Your task to perform on an android device: What's US dollar exchange rate against the Chinese Yuan? Image 0: 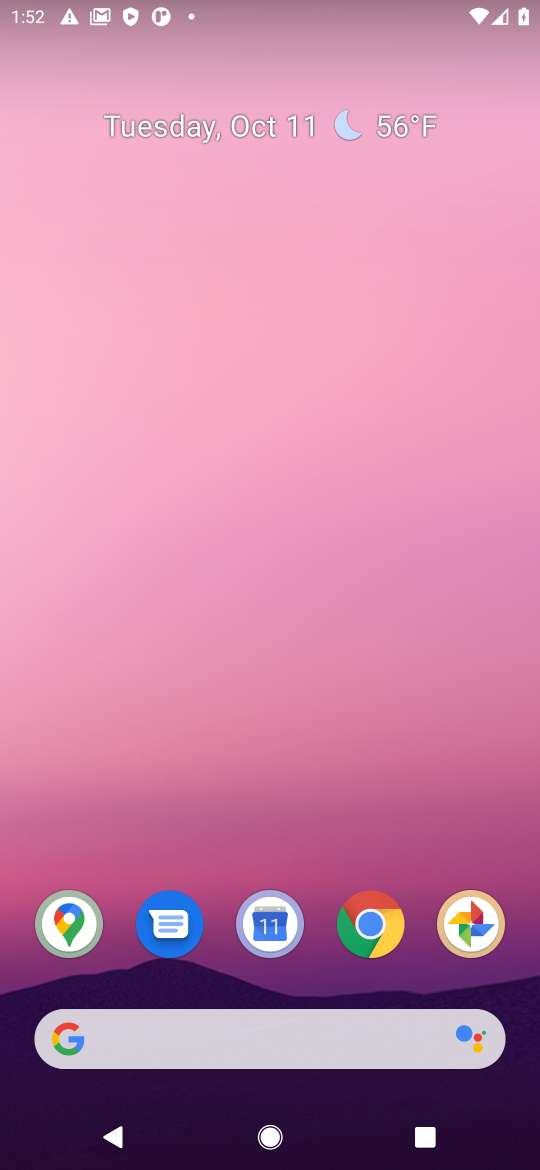
Step 0: drag from (297, 845) to (276, 69)
Your task to perform on an android device: What's US dollar exchange rate against the Chinese Yuan? Image 1: 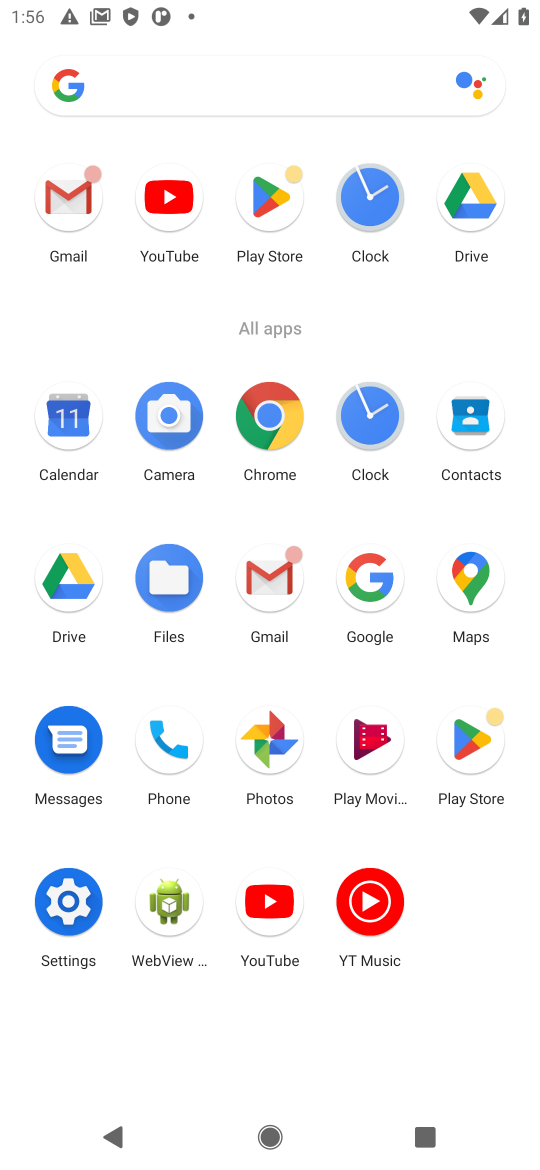
Step 1: click (379, 578)
Your task to perform on an android device: What's US dollar exchange rate against the Chinese Yuan? Image 2: 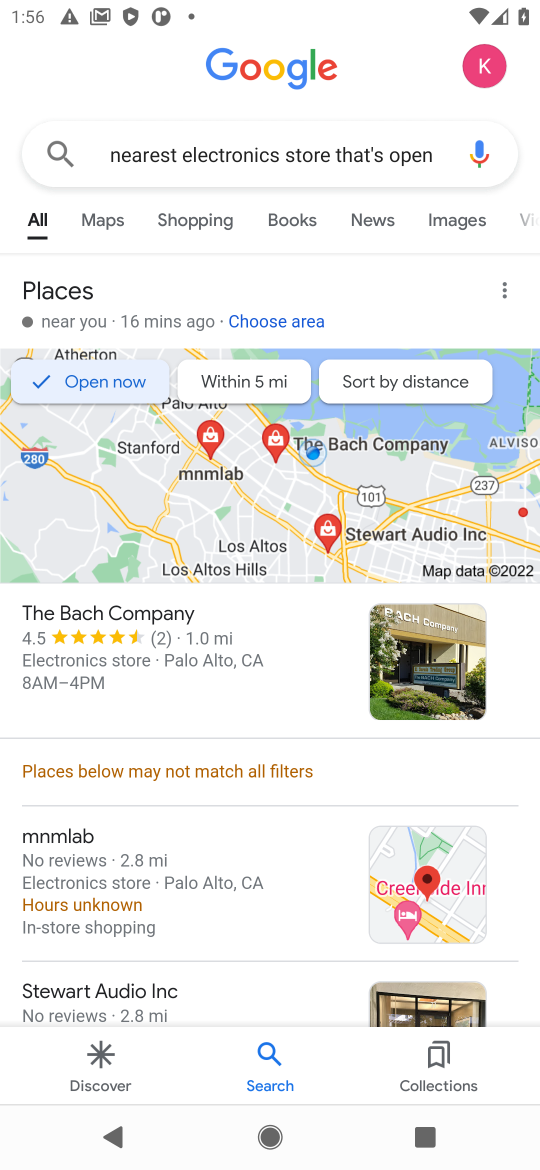
Step 2: click (387, 155)
Your task to perform on an android device: What's US dollar exchange rate against the Chinese Yuan? Image 3: 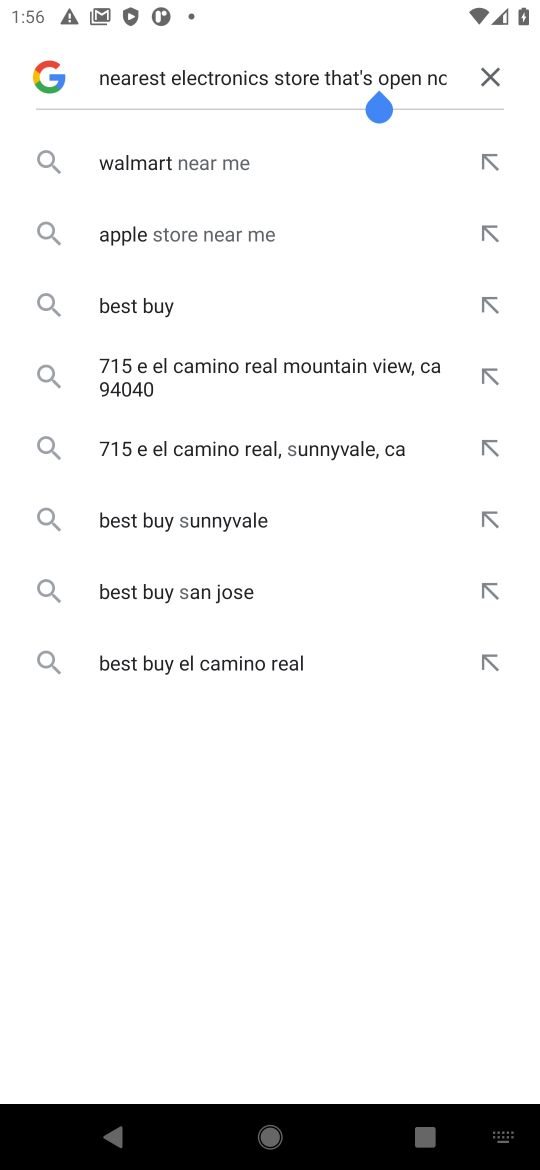
Step 3: click (487, 77)
Your task to perform on an android device: What's US dollar exchange rate against the Chinese Yuan? Image 4: 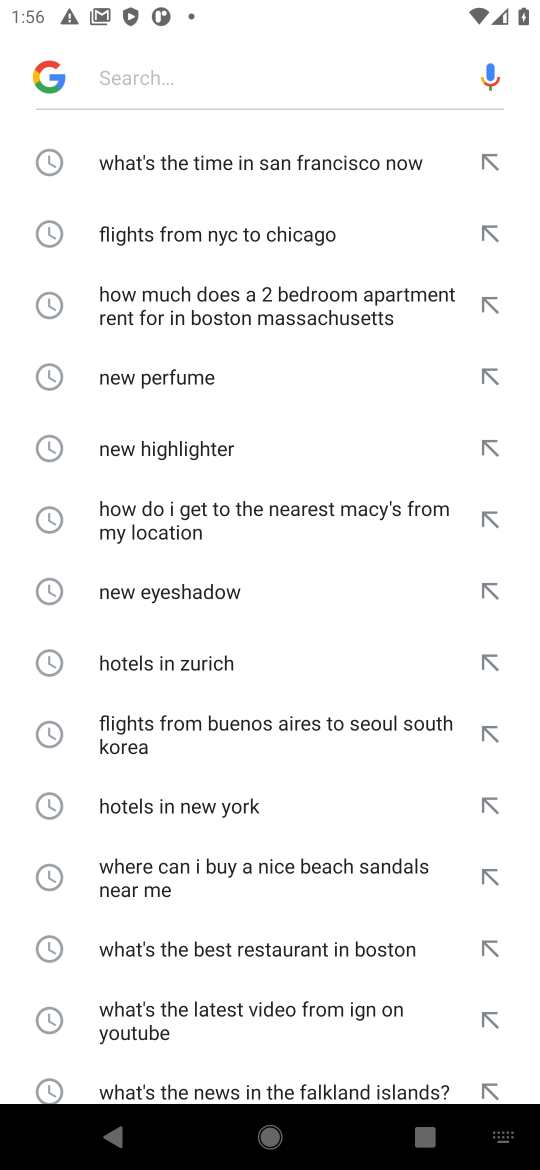
Step 4: type "What's US dollar exchange rate against the Chinese Yuan?"
Your task to perform on an android device: What's US dollar exchange rate against the Chinese Yuan? Image 5: 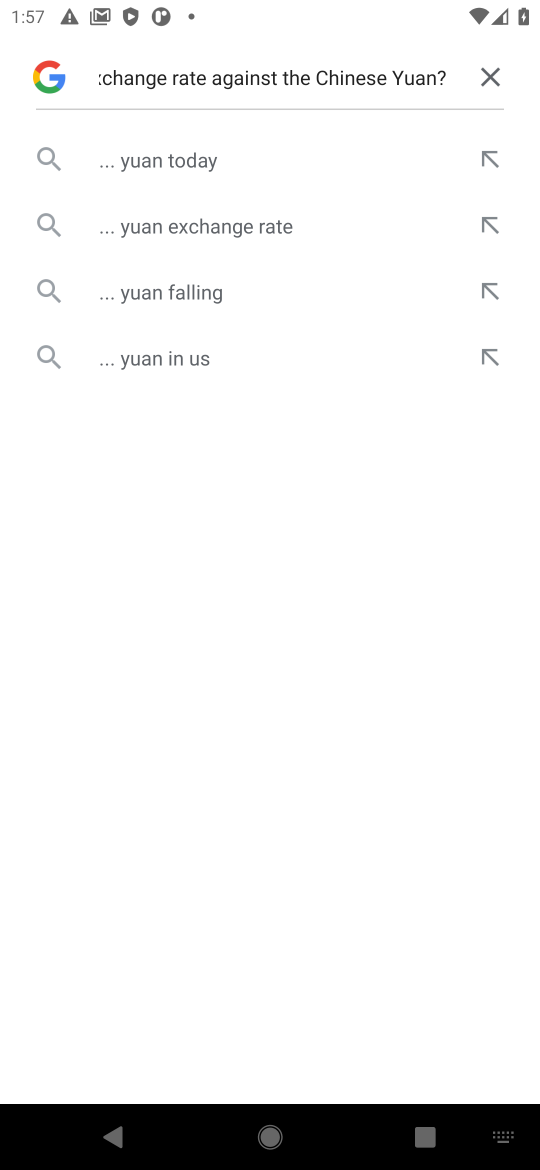
Step 5: click (168, 160)
Your task to perform on an android device: What's US dollar exchange rate against the Chinese Yuan? Image 6: 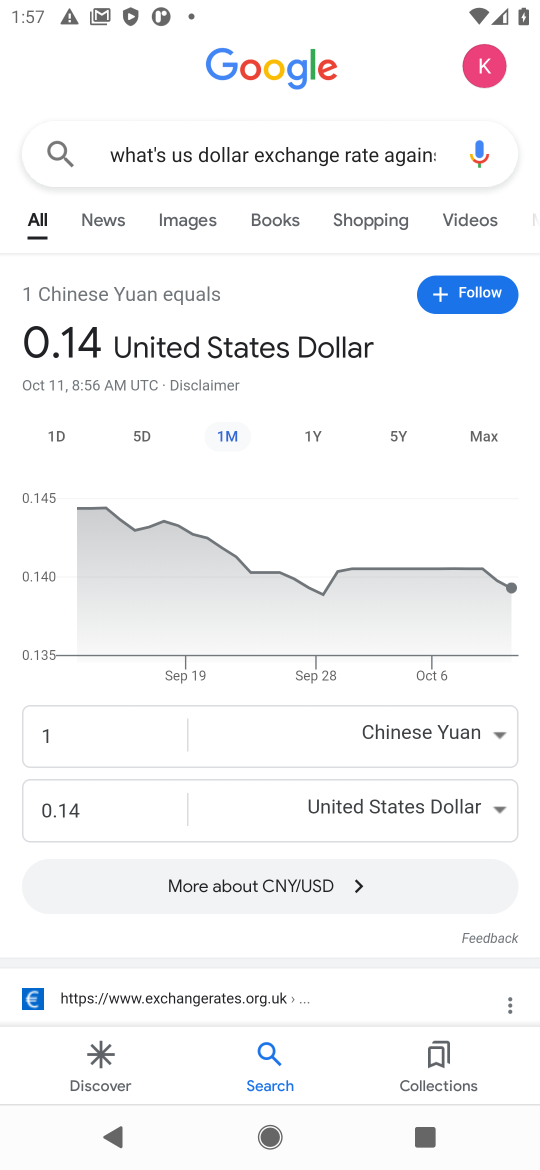
Step 6: task complete